Your task to perform on an android device: find which apps use the phone's location Image 0: 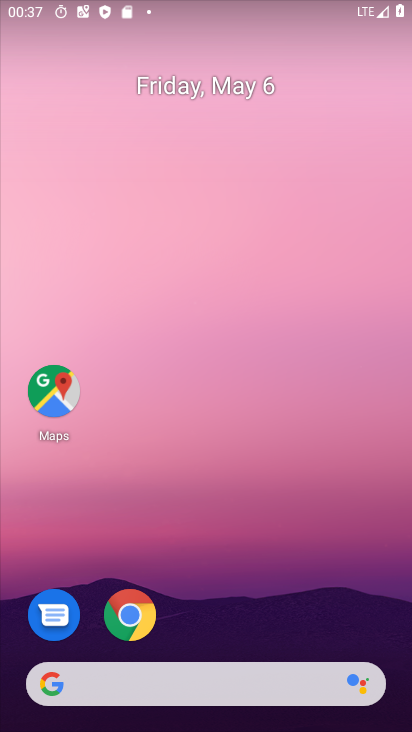
Step 0: drag from (229, 608) to (294, 89)
Your task to perform on an android device: find which apps use the phone's location Image 1: 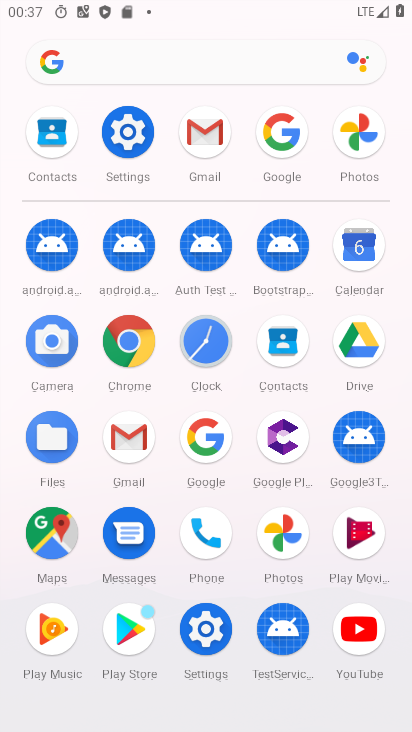
Step 1: click (207, 630)
Your task to perform on an android device: find which apps use the phone's location Image 2: 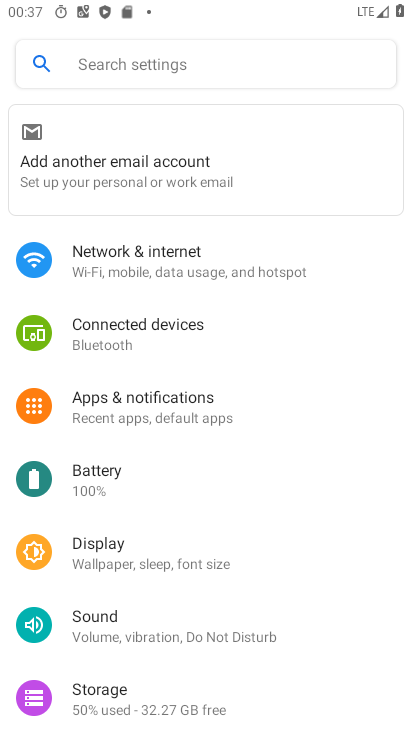
Step 2: drag from (204, 629) to (308, 41)
Your task to perform on an android device: find which apps use the phone's location Image 3: 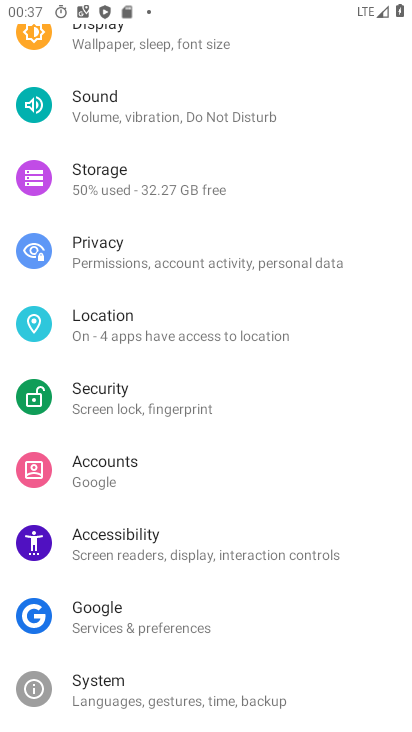
Step 3: click (165, 330)
Your task to perform on an android device: find which apps use the phone's location Image 4: 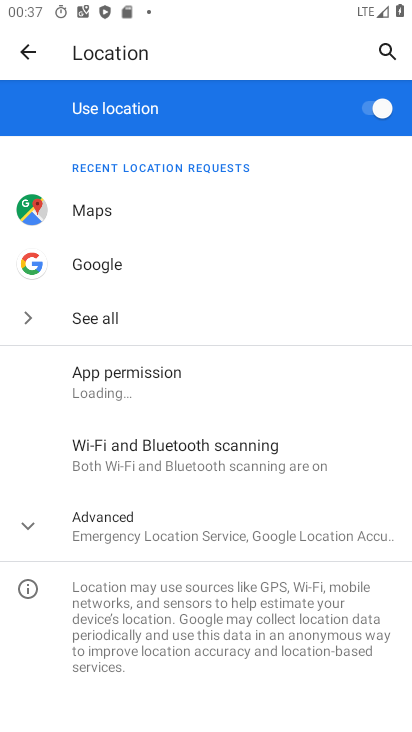
Step 4: click (141, 385)
Your task to perform on an android device: find which apps use the phone's location Image 5: 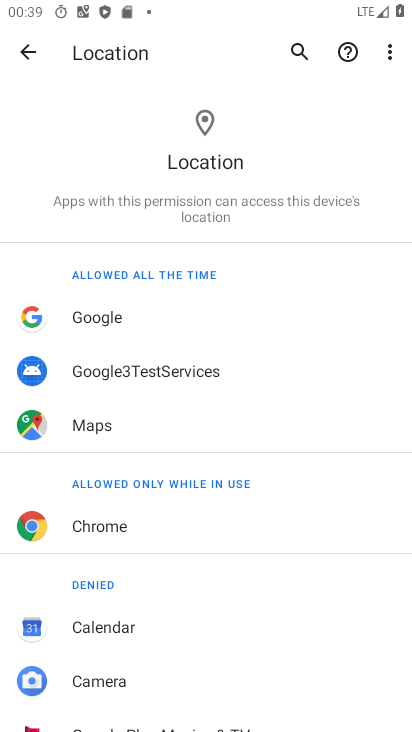
Step 5: task complete